Your task to perform on an android device: add a label to a message in the gmail app Image 0: 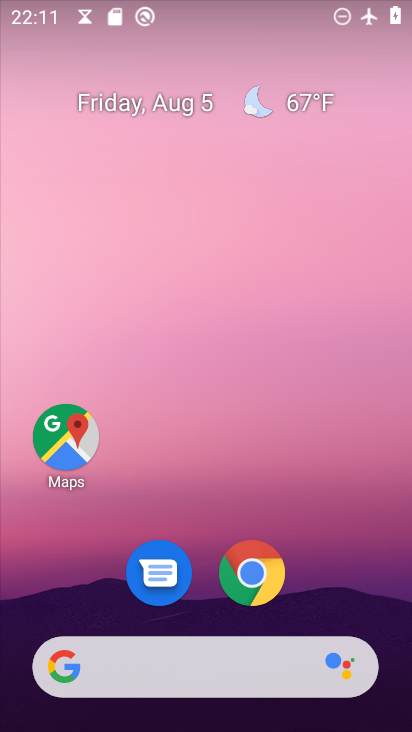
Step 0: drag from (189, 650) to (211, 221)
Your task to perform on an android device: add a label to a message in the gmail app Image 1: 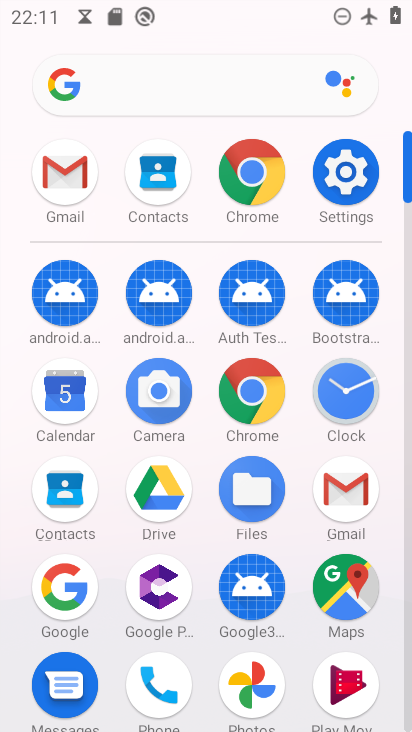
Step 1: click (61, 175)
Your task to perform on an android device: add a label to a message in the gmail app Image 2: 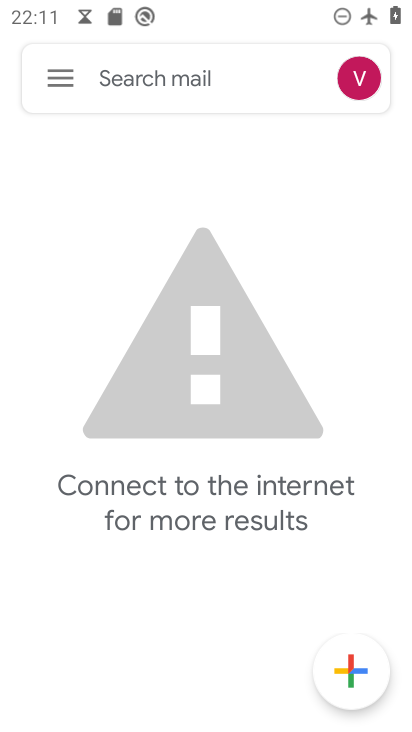
Step 2: click (59, 77)
Your task to perform on an android device: add a label to a message in the gmail app Image 3: 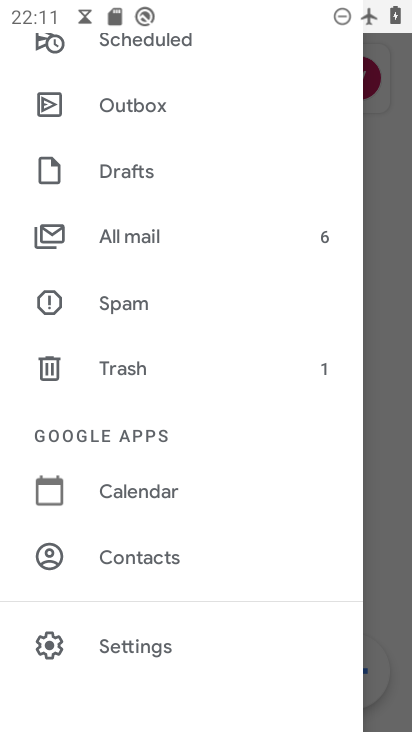
Step 3: click (168, 232)
Your task to perform on an android device: add a label to a message in the gmail app Image 4: 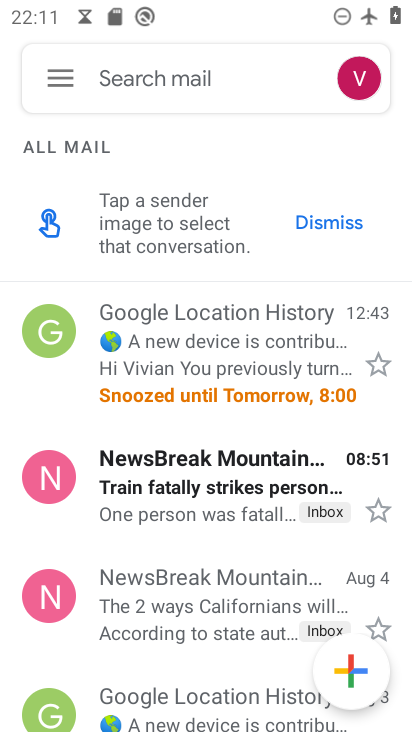
Step 4: click (197, 366)
Your task to perform on an android device: add a label to a message in the gmail app Image 5: 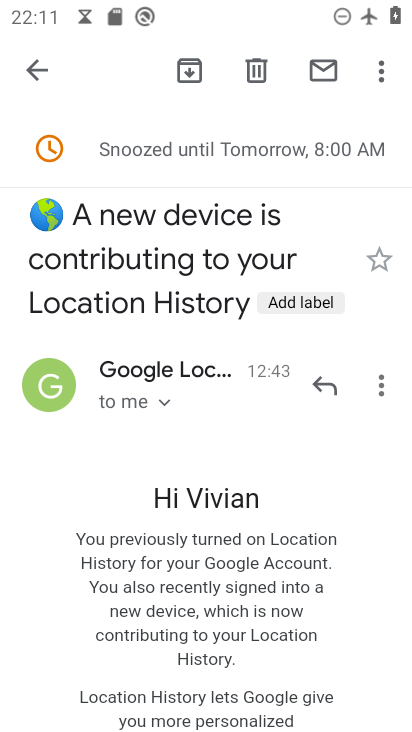
Step 5: task complete